Your task to perform on an android device: What's the weather today? Image 0: 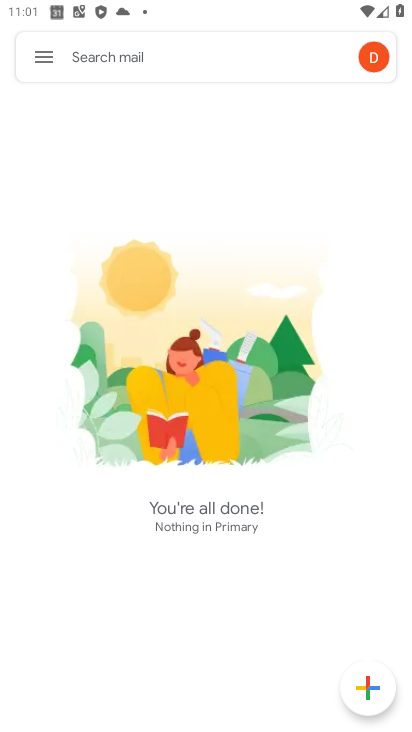
Step 0: press home button
Your task to perform on an android device: What's the weather today? Image 1: 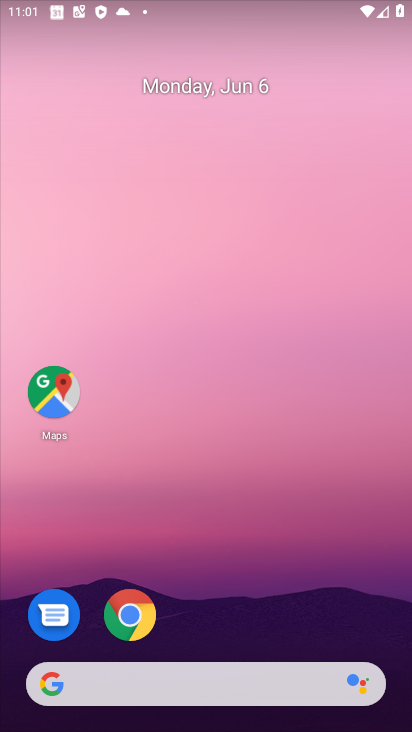
Step 1: click (263, 603)
Your task to perform on an android device: What's the weather today? Image 2: 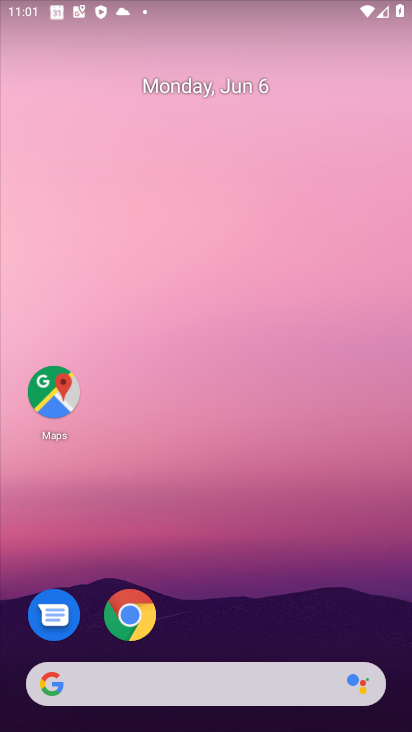
Step 2: click (256, 684)
Your task to perform on an android device: What's the weather today? Image 3: 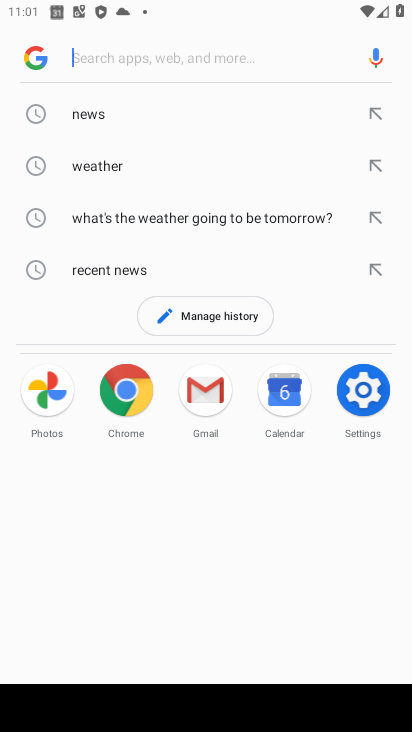
Step 3: click (97, 153)
Your task to perform on an android device: What's the weather today? Image 4: 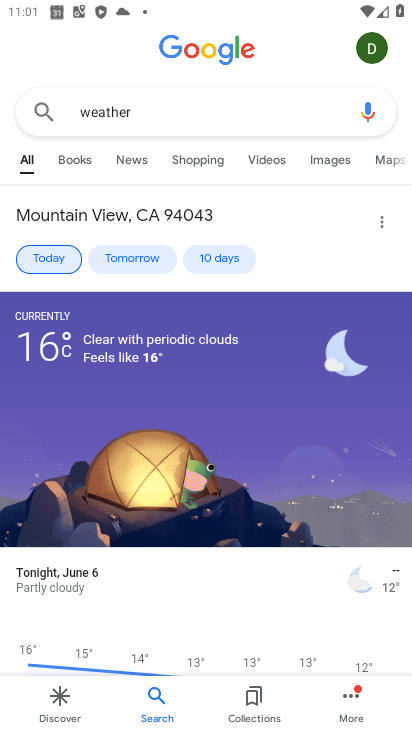
Step 4: task complete